Your task to perform on an android device: turn on notifications settings in the gmail app Image 0: 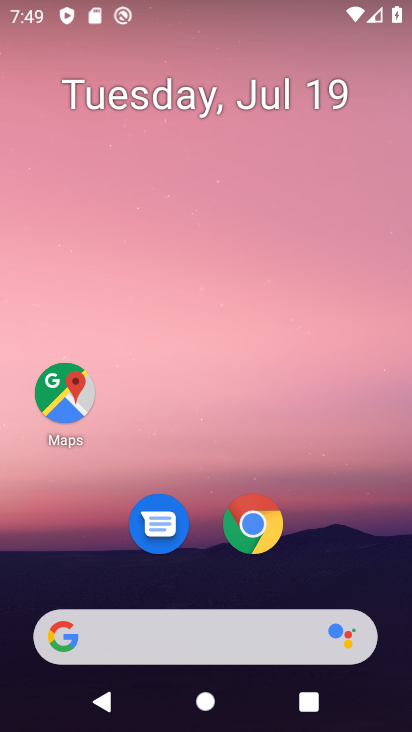
Step 0: drag from (323, 510) to (376, 55)
Your task to perform on an android device: turn on notifications settings in the gmail app Image 1: 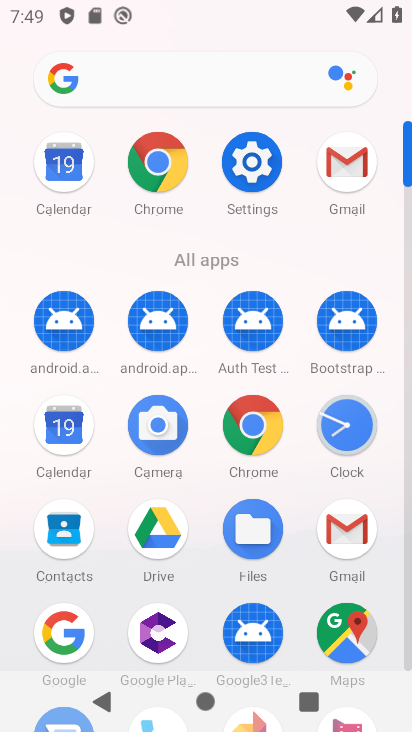
Step 1: click (343, 166)
Your task to perform on an android device: turn on notifications settings in the gmail app Image 2: 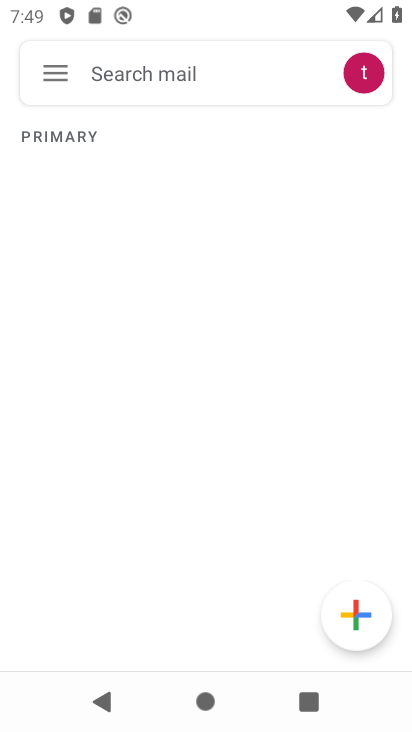
Step 2: click (57, 68)
Your task to perform on an android device: turn on notifications settings in the gmail app Image 3: 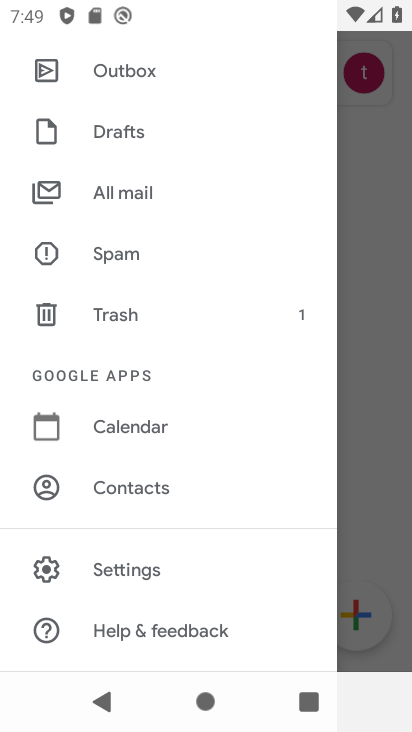
Step 3: click (130, 562)
Your task to perform on an android device: turn on notifications settings in the gmail app Image 4: 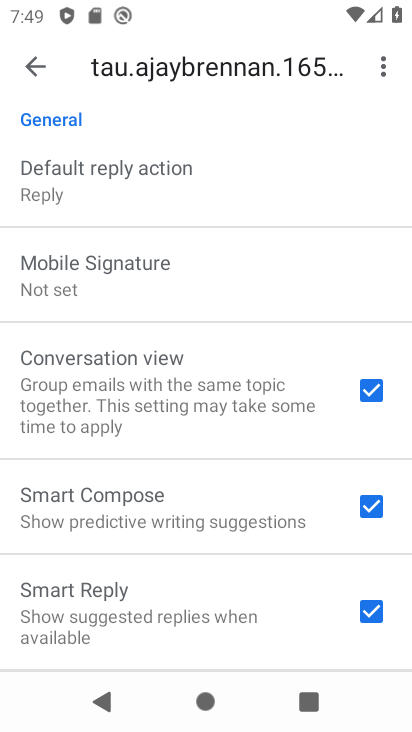
Step 4: drag from (262, 184) to (216, 550)
Your task to perform on an android device: turn on notifications settings in the gmail app Image 5: 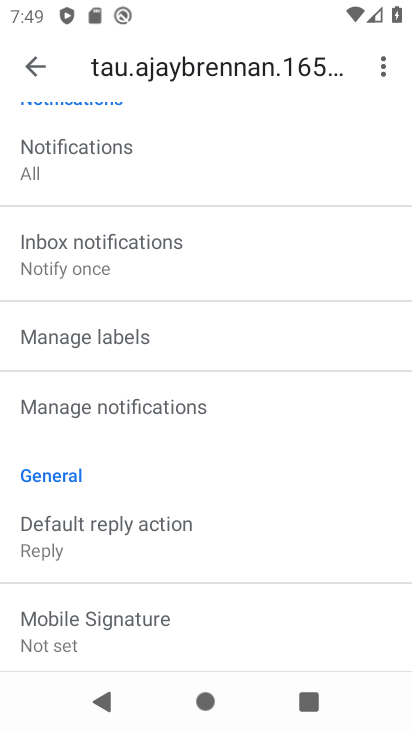
Step 5: click (212, 402)
Your task to perform on an android device: turn on notifications settings in the gmail app Image 6: 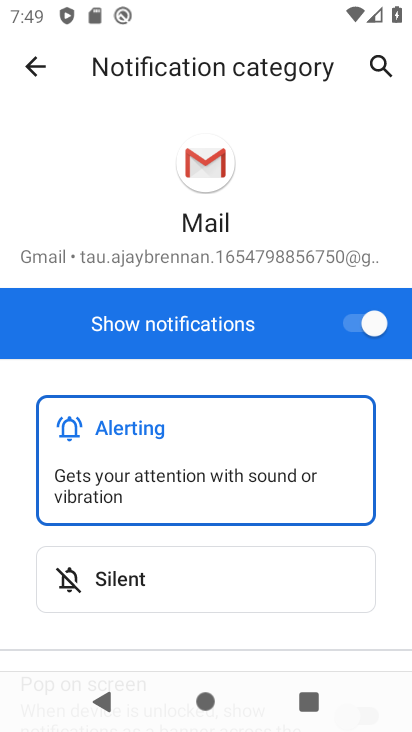
Step 6: task complete